Your task to perform on an android device: Open calendar and show me the third week of next month Image 0: 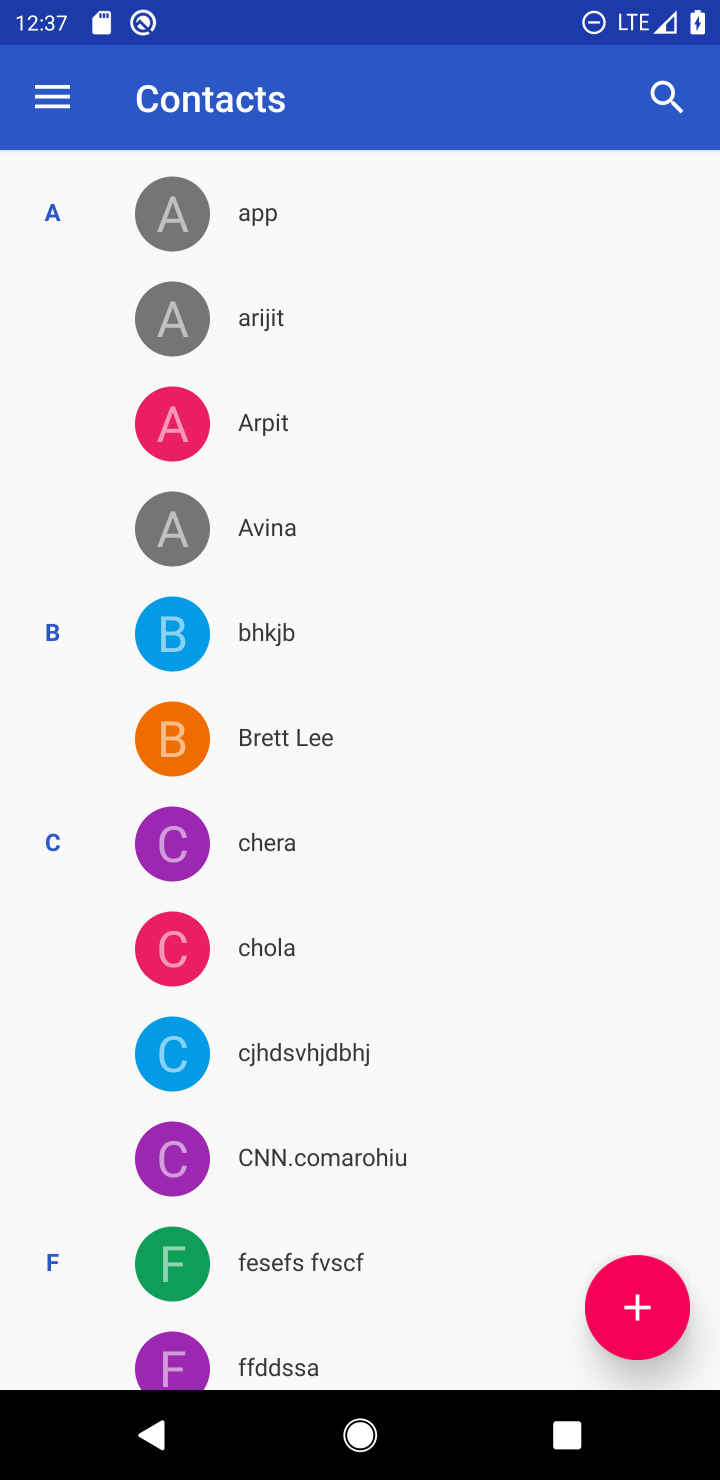
Step 0: press home button
Your task to perform on an android device: Open calendar and show me the third week of next month Image 1: 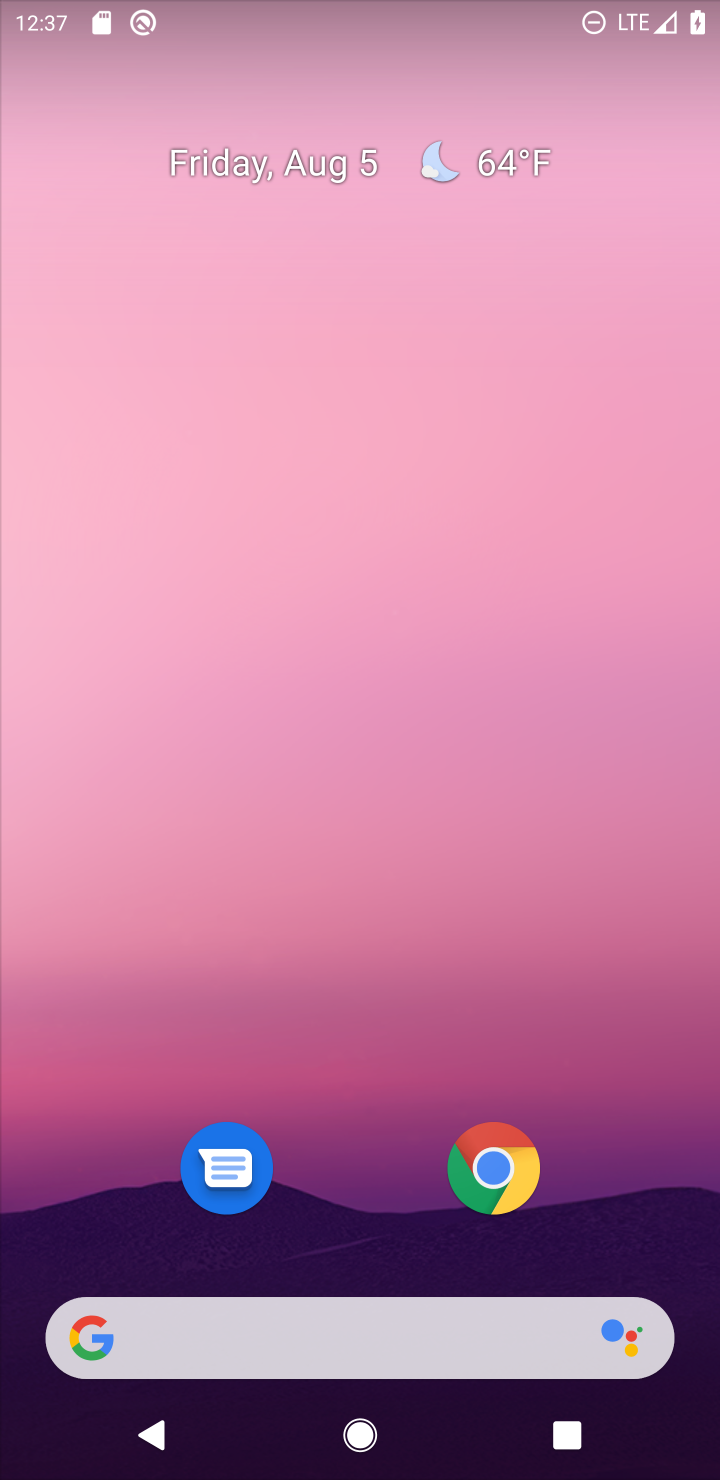
Step 1: click (272, 8)
Your task to perform on an android device: Open calendar and show me the third week of next month Image 2: 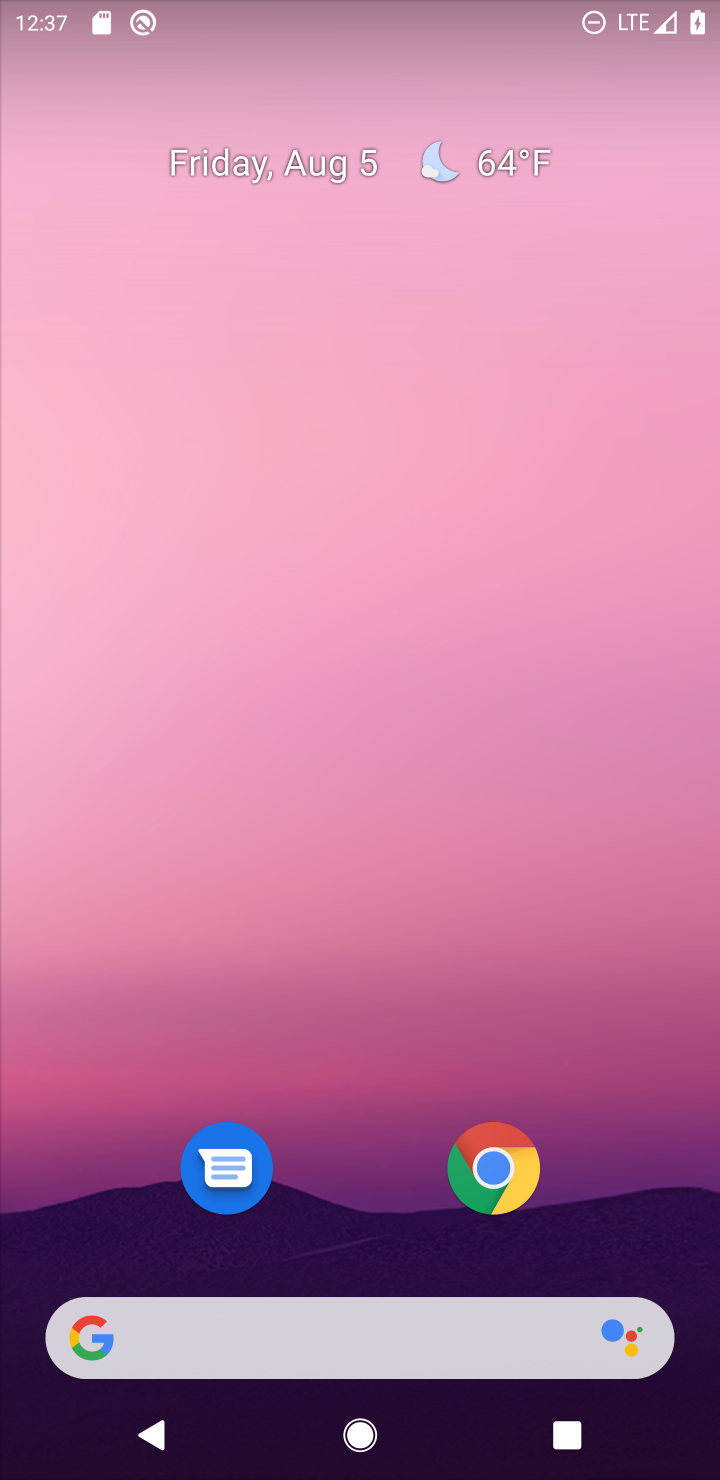
Step 2: drag from (620, 1228) to (344, 54)
Your task to perform on an android device: Open calendar and show me the third week of next month Image 3: 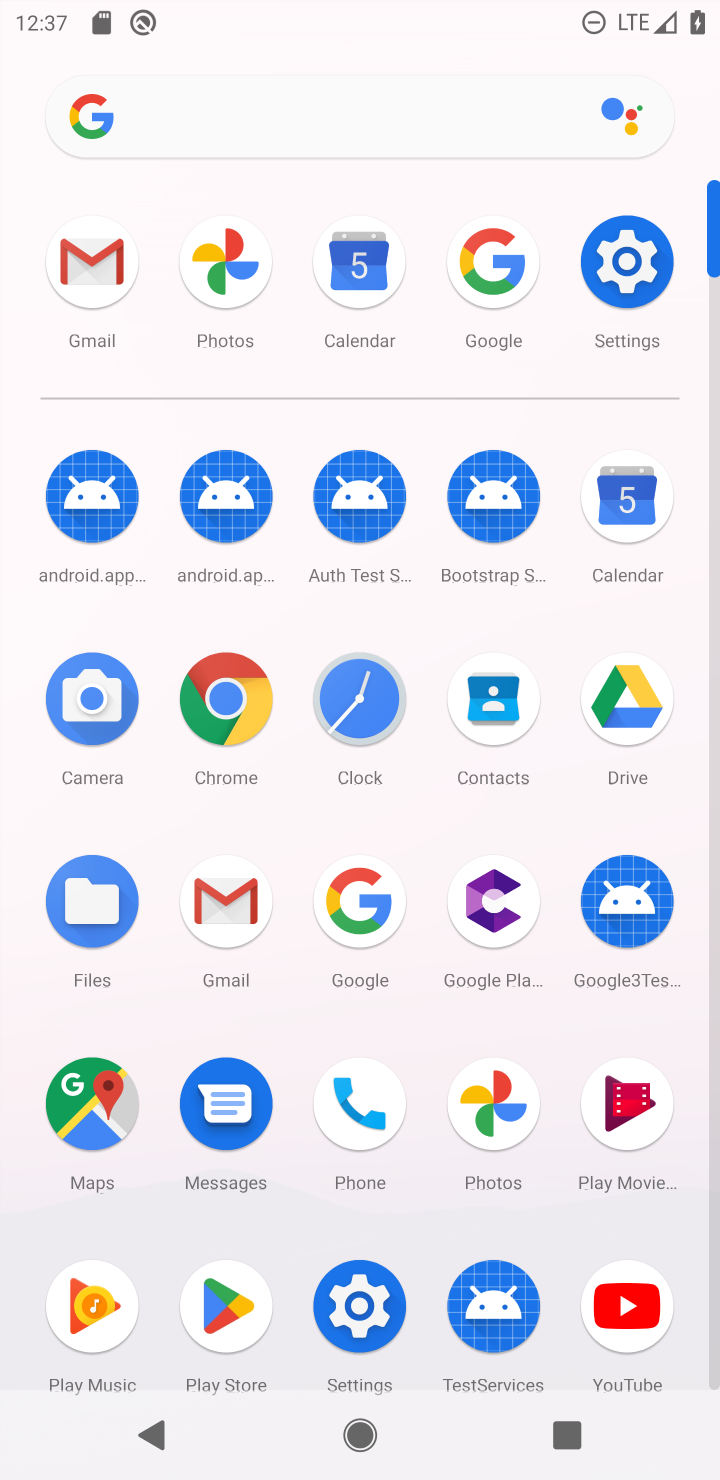
Step 3: click (630, 531)
Your task to perform on an android device: Open calendar and show me the third week of next month Image 4: 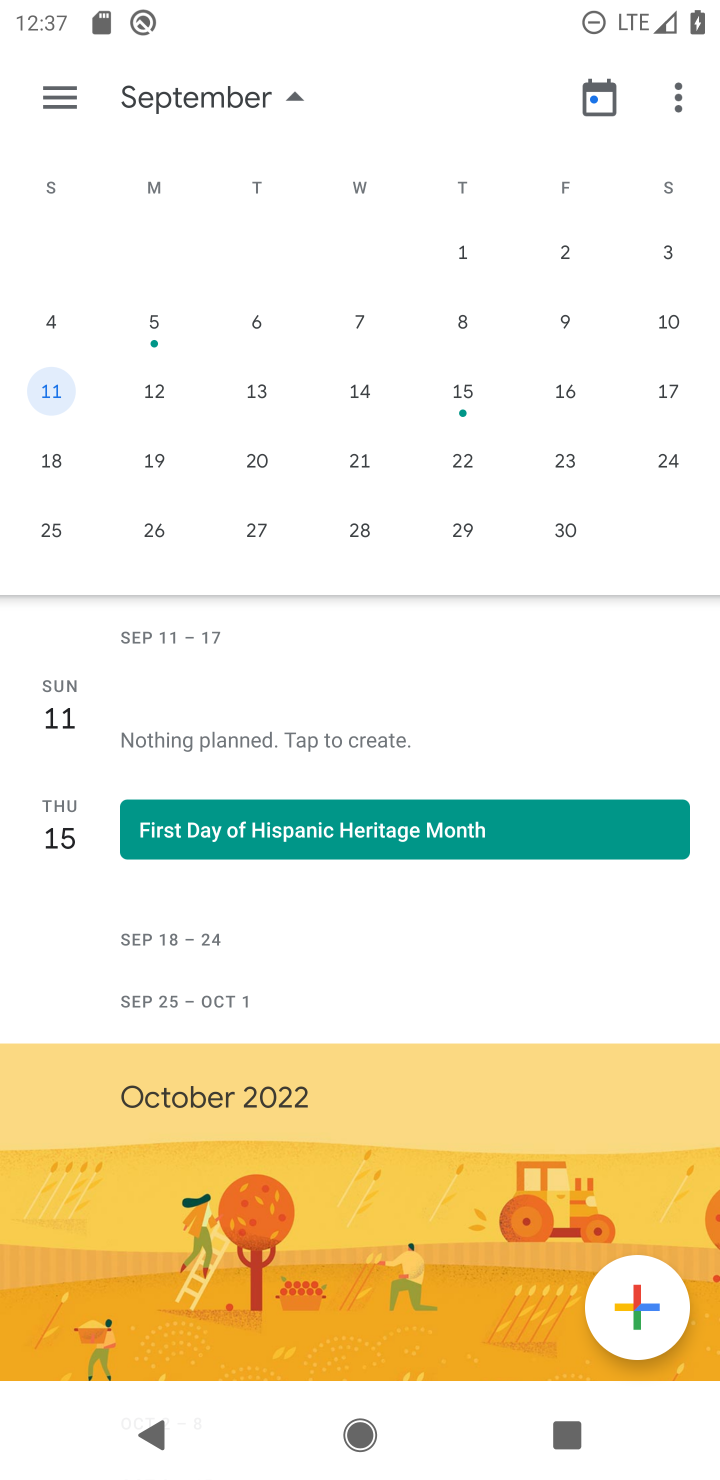
Step 4: drag from (672, 340) to (67, 445)
Your task to perform on an android device: Open calendar and show me the third week of next month Image 5: 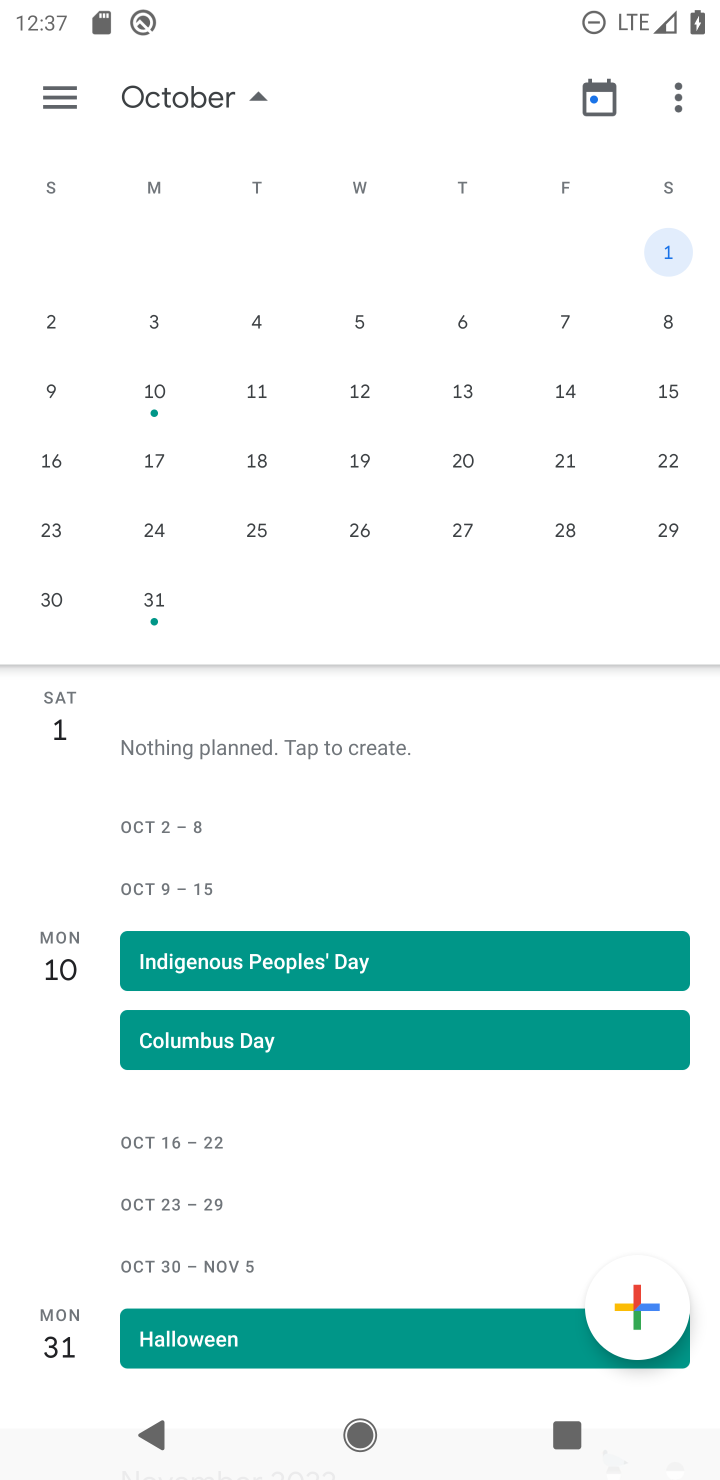
Step 5: click (42, 472)
Your task to perform on an android device: Open calendar and show me the third week of next month Image 6: 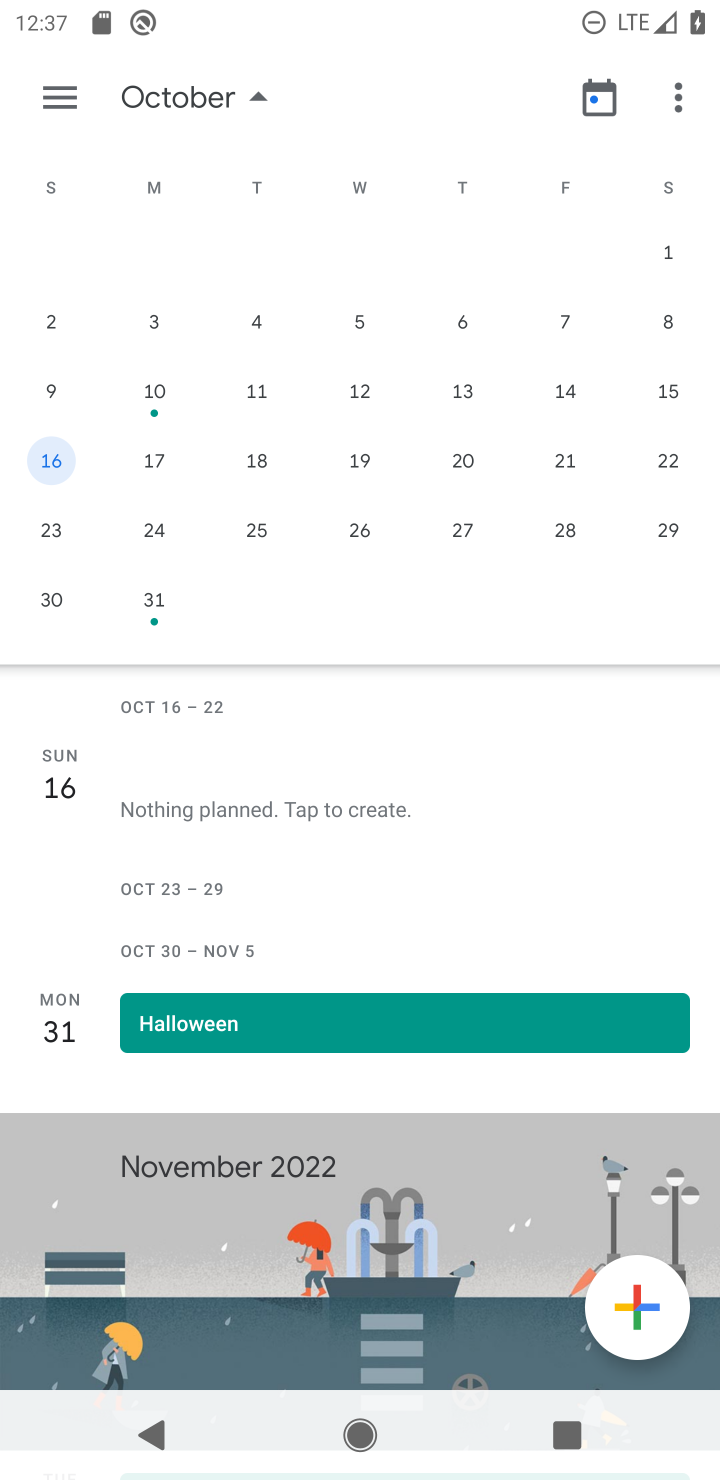
Step 6: task complete